Your task to perform on an android device: open a bookmark in the chrome app Image 0: 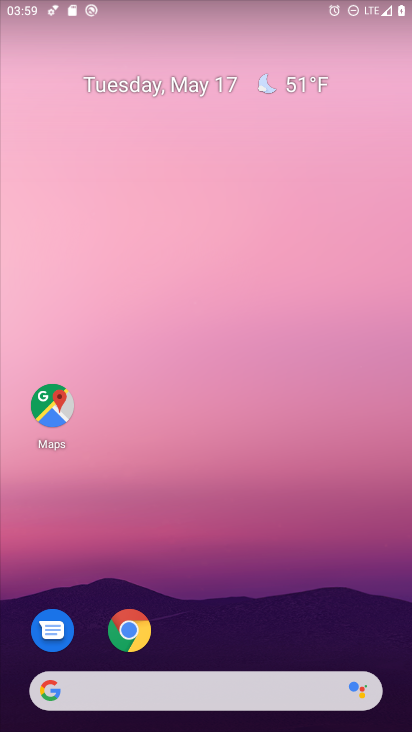
Step 0: click (120, 631)
Your task to perform on an android device: open a bookmark in the chrome app Image 1: 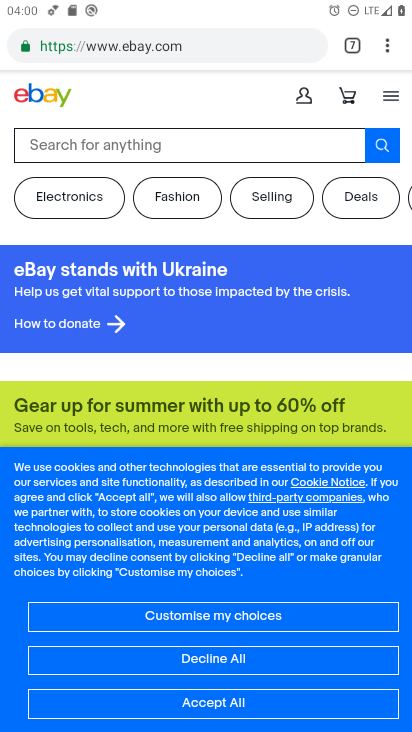
Step 1: click (388, 42)
Your task to perform on an android device: open a bookmark in the chrome app Image 2: 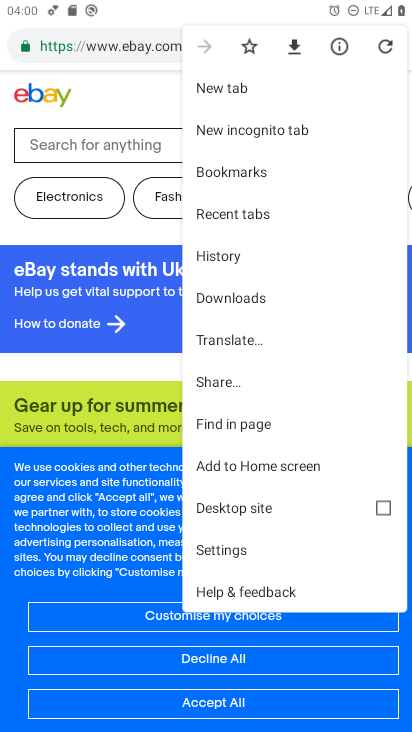
Step 2: click (250, 165)
Your task to perform on an android device: open a bookmark in the chrome app Image 3: 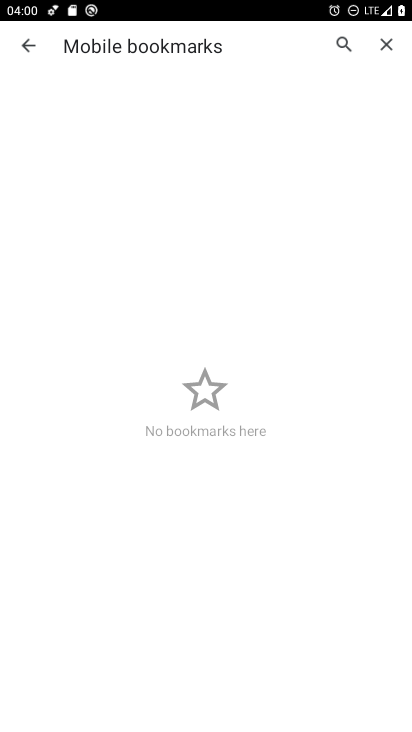
Step 3: task complete